Your task to perform on an android device: uninstall "Skype" Image 0: 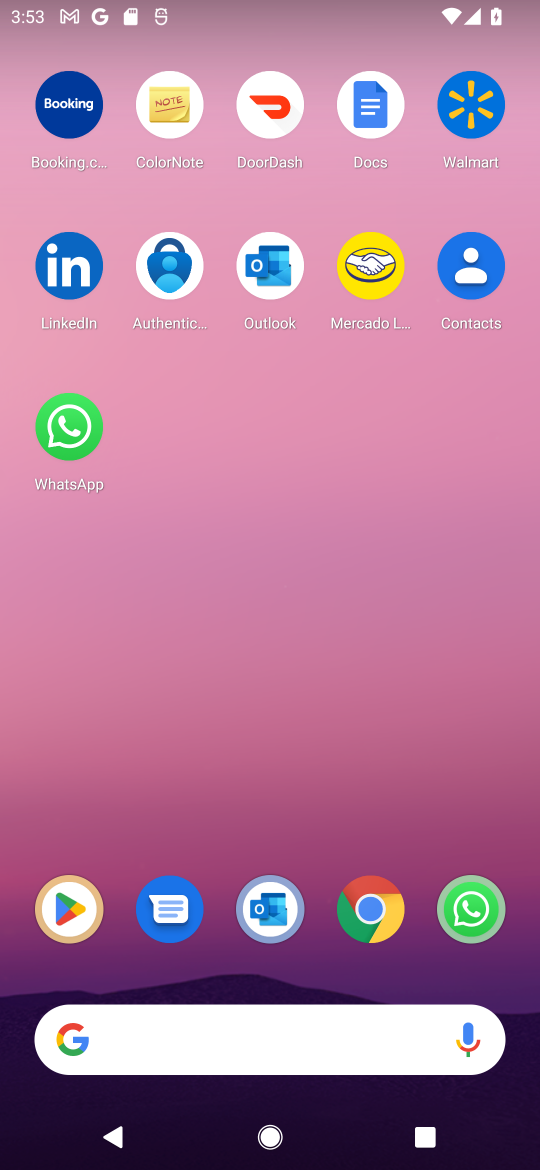
Step 0: click (58, 907)
Your task to perform on an android device: uninstall "Skype" Image 1: 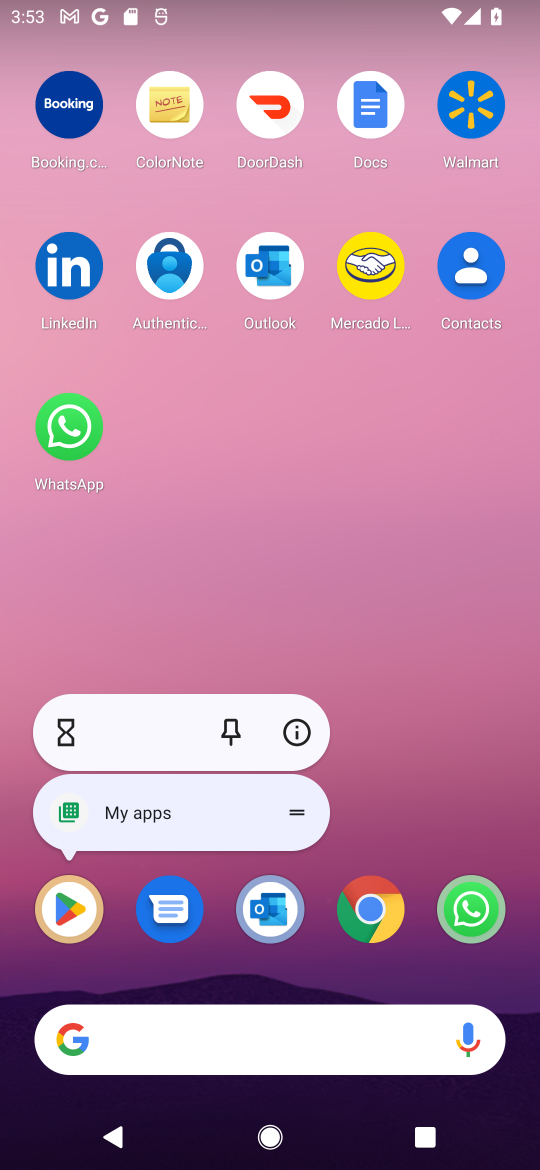
Step 1: click (304, 727)
Your task to perform on an android device: uninstall "Skype" Image 2: 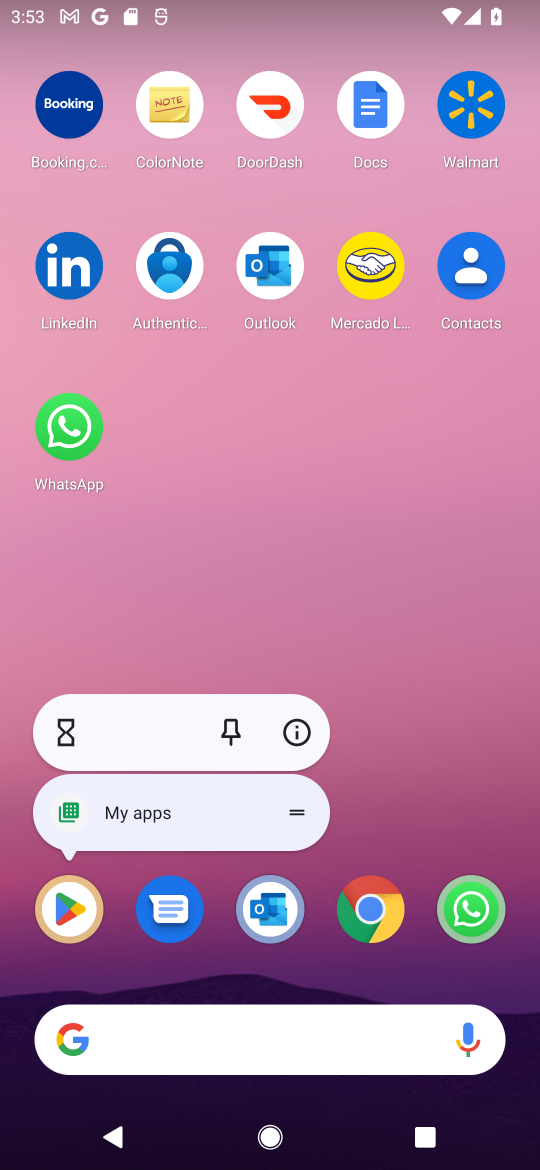
Step 2: click (296, 737)
Your task to perform on an android device: uninstall "Skype" Image 3: 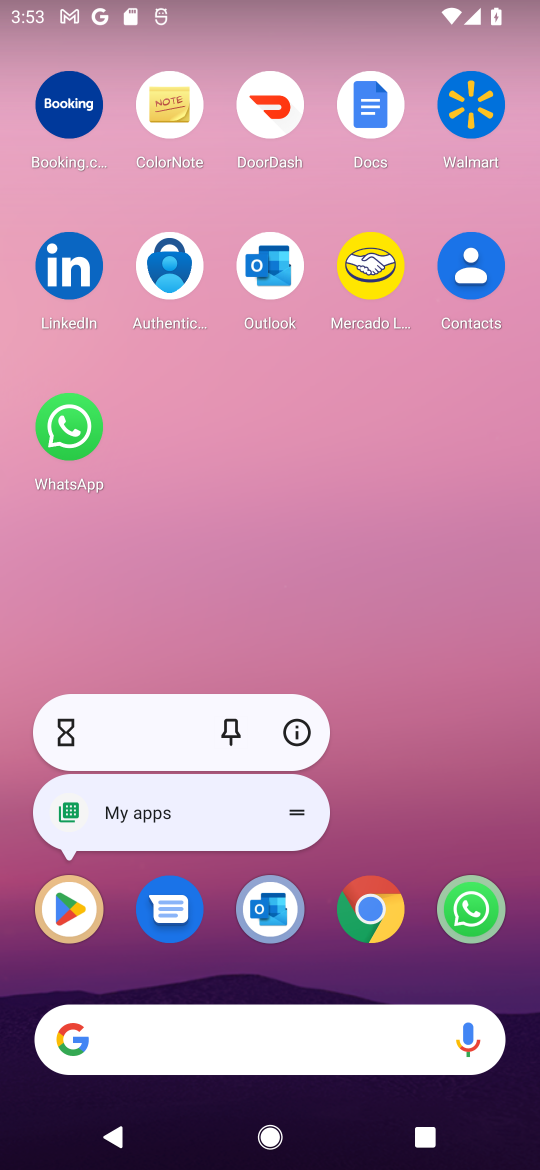
Step 3: click (286, 716)
Your task to perform on an android device: uninstall "Skype" Image 4: 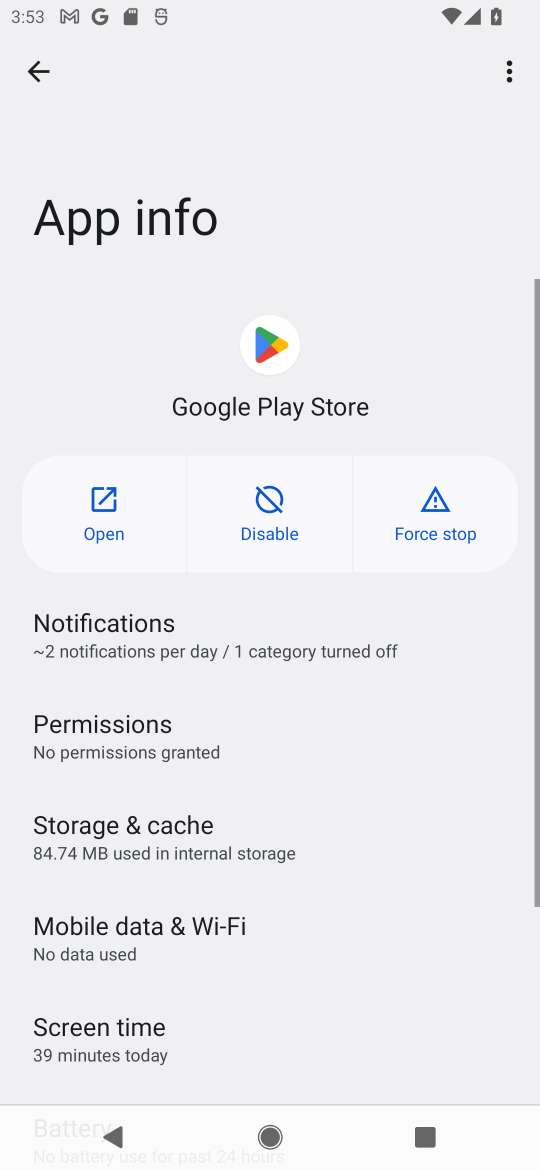
Step 4: click (103, 583)
Your task to perform on an android device: uninstall "Skype" Image 5: 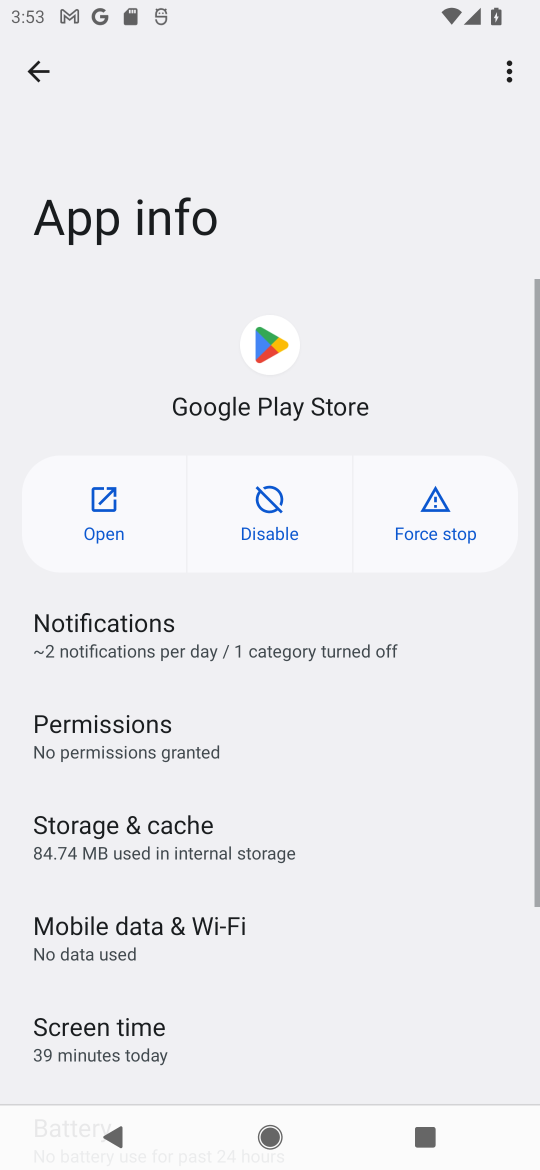
Step 5: click (91, 535)
Your task to perform on an android device: uninstall "Skype" Image 6: 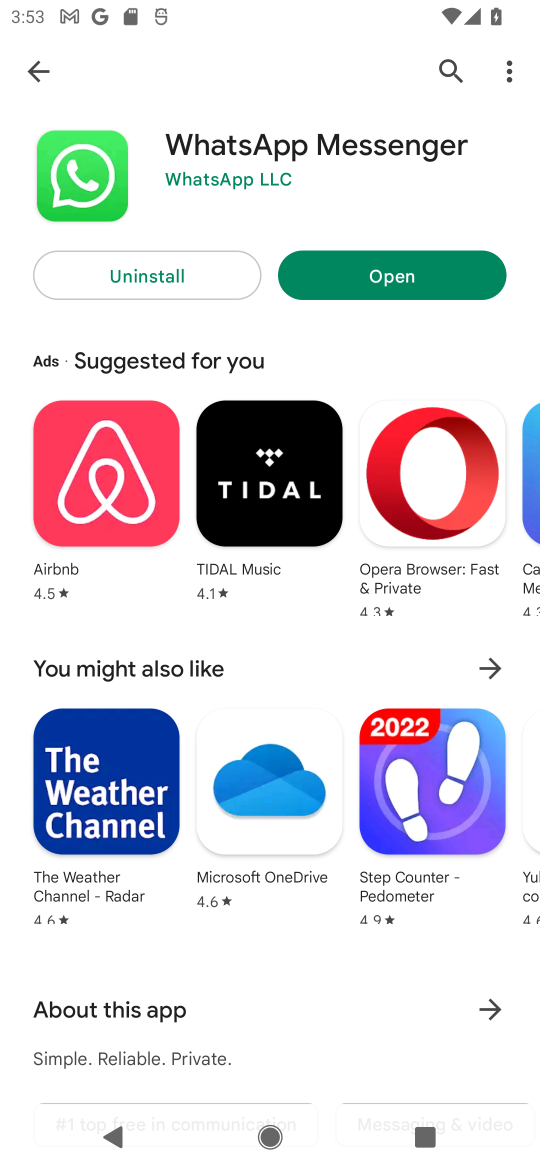
Step 6: click (441, 66)
Your task to perform on an android device: uninstall "Skype" Image 7: 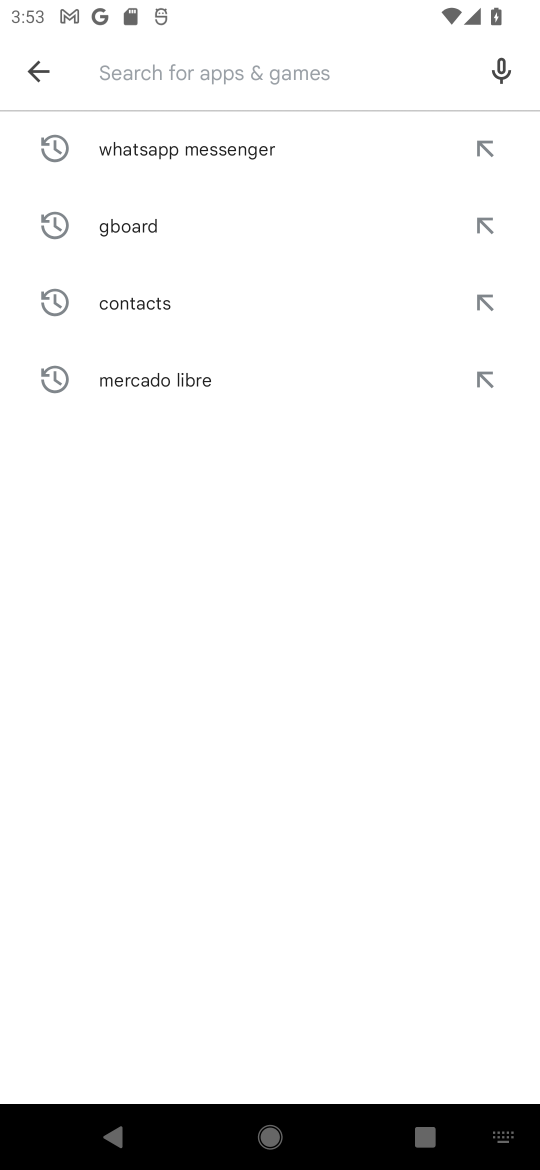
Step 7: type "Skype"
Your task to perform on an android device: uninstall "Skype" Image 8: 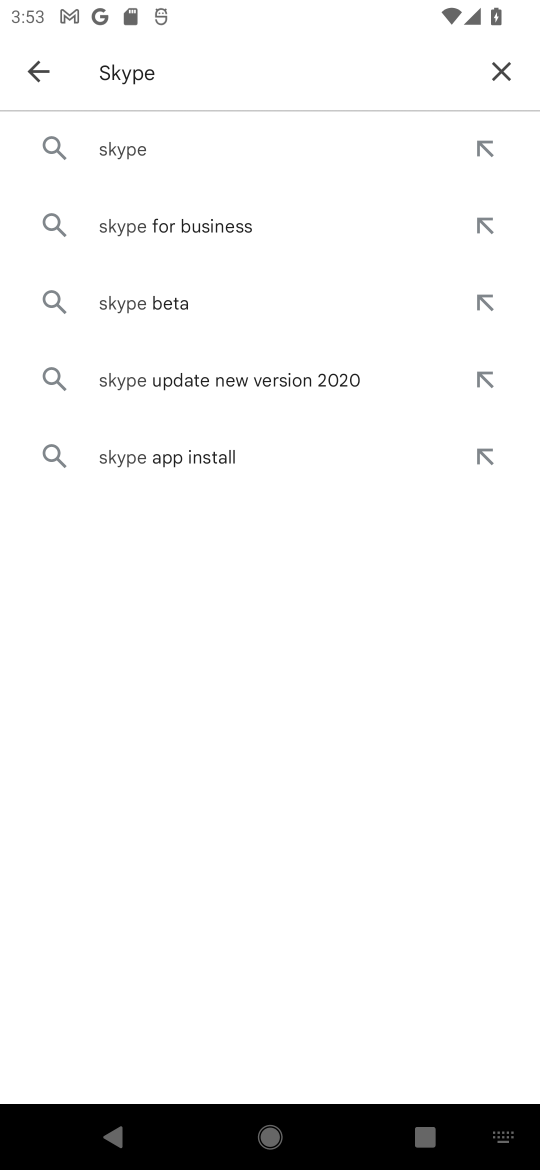
Step 8: click (134, 158)
Your task to perform on an android device: uninstall "Skype" Image 9: 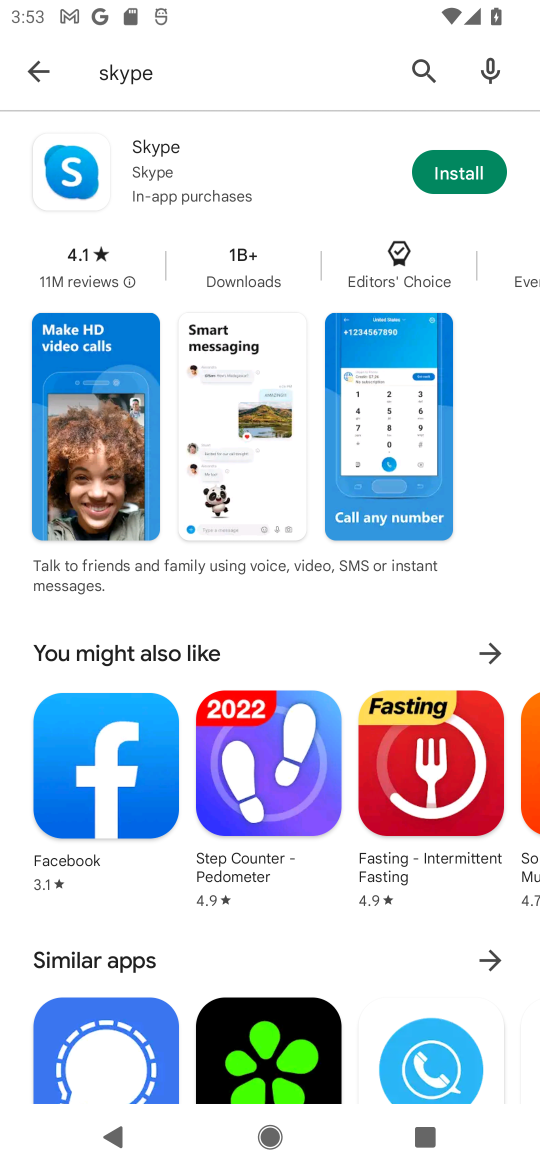
Step 9: click (153, 165)
Your task to perform on an android device: uninstall "Skype" Image 10: 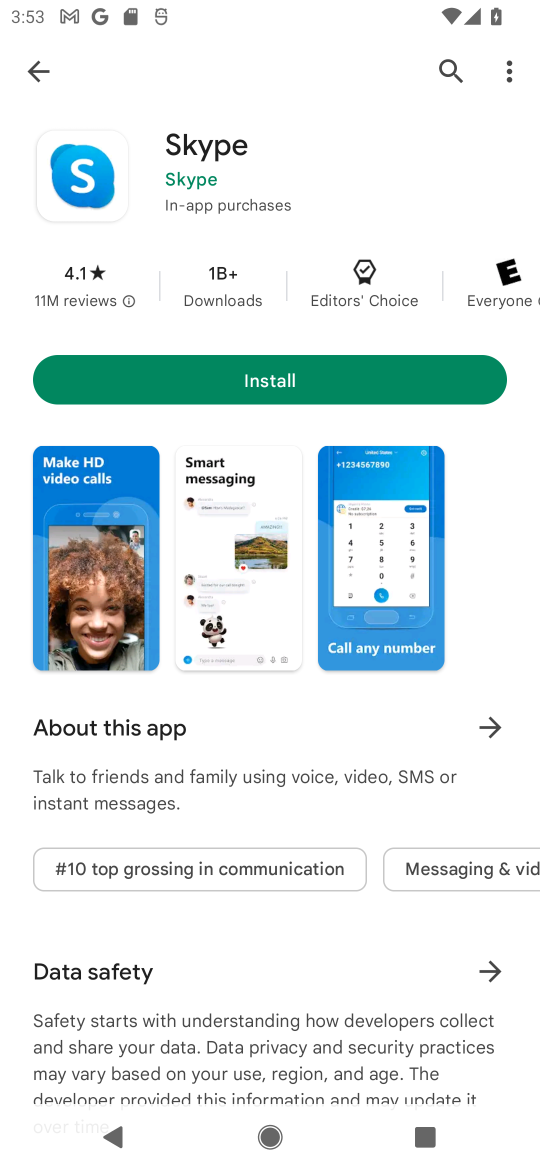
Step 10: task complete